Your task to perform on an android device: open a bookmark in the chrome app Image 0: 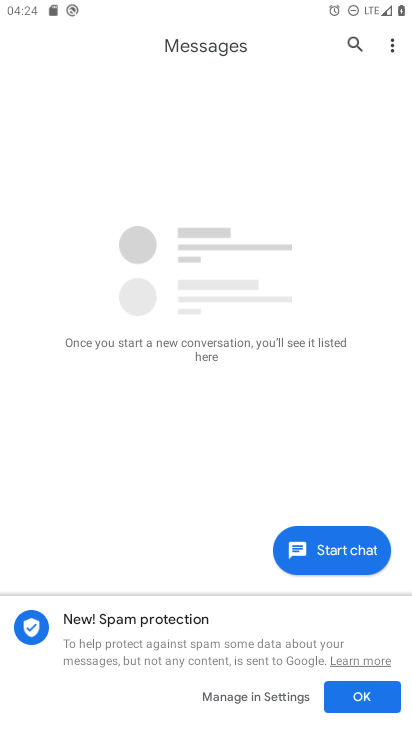
Step 0: press back button
Your task to perform on an android device: open a bookmark in the chrome app Image 1: 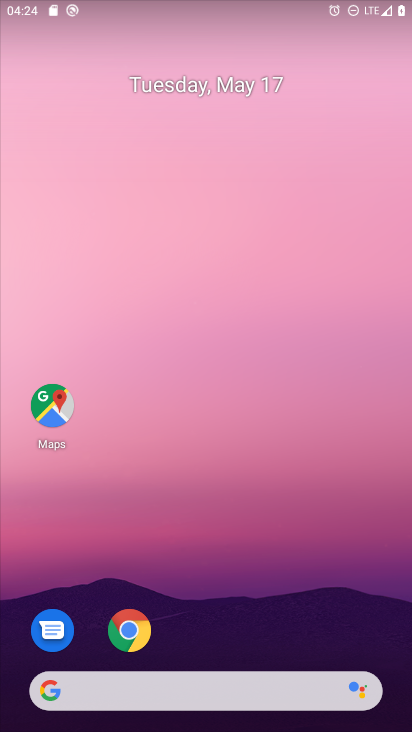
Step 1: click (140, 637)
Your task to perform on an android device: open a bookmark in the chrome app Image 2: 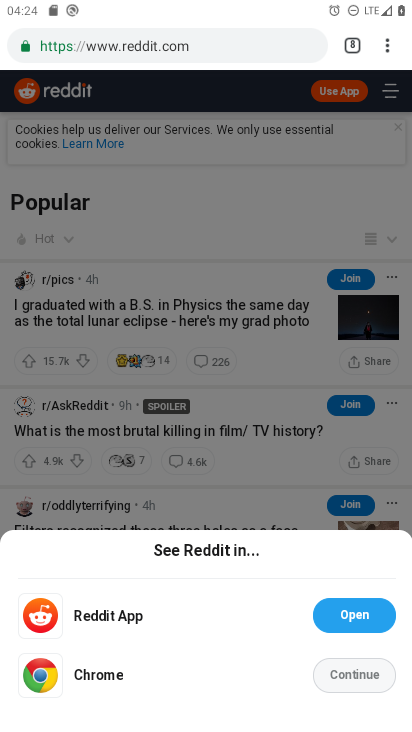
Step 2: task complete